Your task to perform on an android device: Show me productivity apps on the Play Store Image 0: 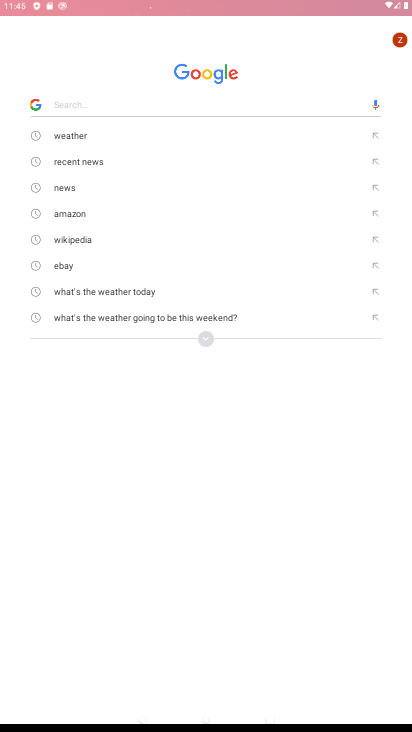
Step 0: press home button
Your task to perform on an android device: Show me productivity apps on the Play Store Image 1: 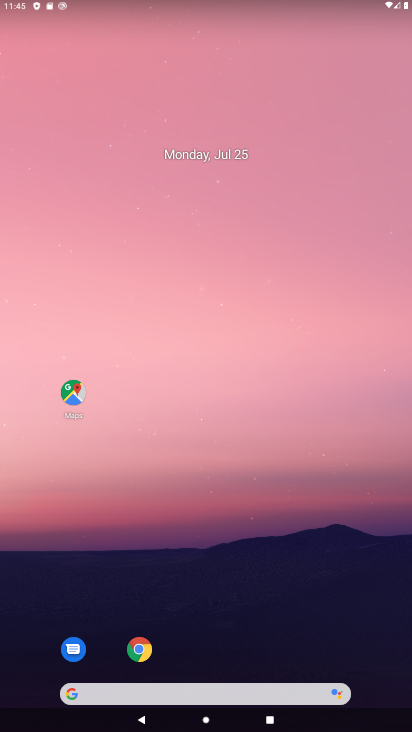
Step 1: drag from (202, 669) to (180, 60)
Your task to perform on an android device: Show me productivity apps on the Play Store Image 2: 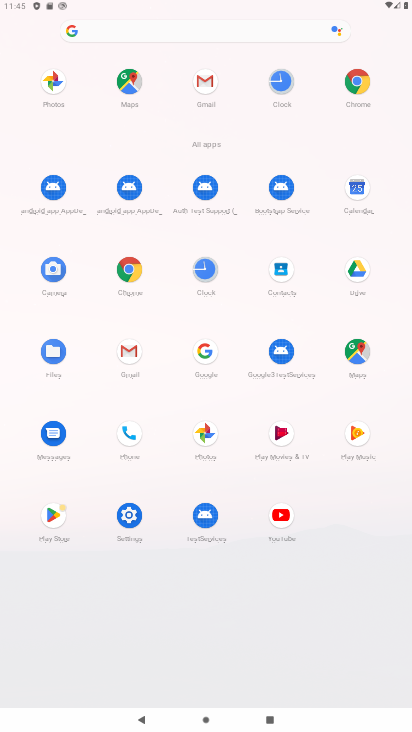
Step 2: click (49, 522)
Your task to perform on an android device: Show me productivity apps on the Play Store Image 3: 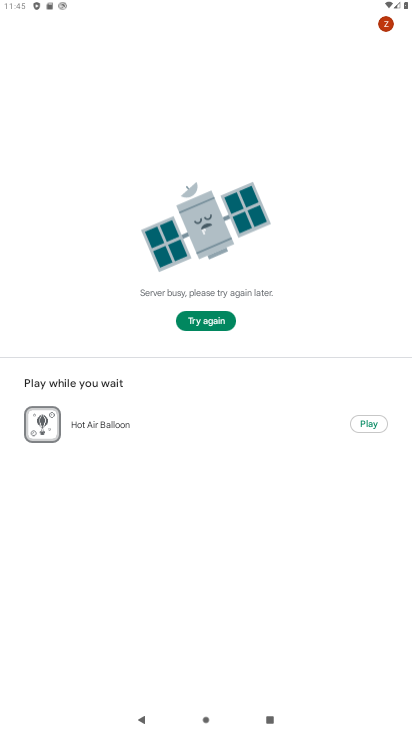
Step 3: click (221, 312)
Your task to perform on an android device: Show me productivity apps on the Play Store Image 4: 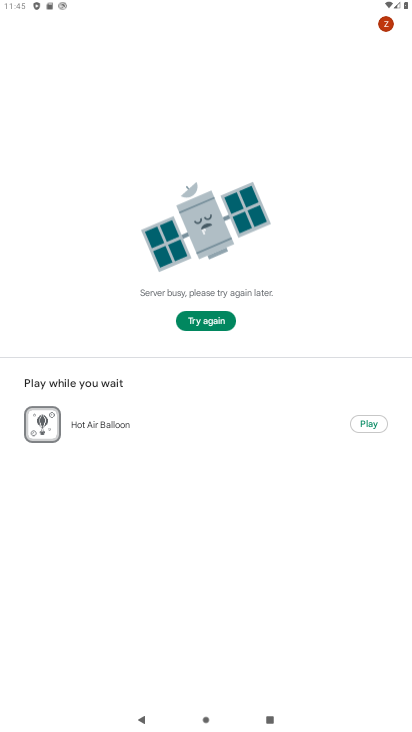
Step 4: task complete